Your task to perform on an android device: What's on my calendar tomorrow? Image 0: 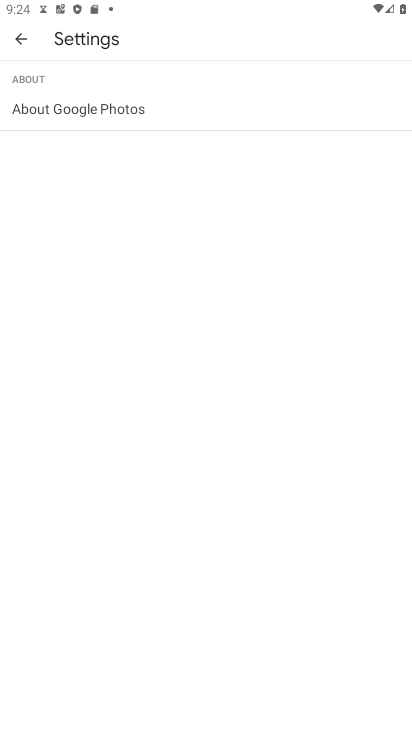
Step 0: press home button
Your task to perform on an android device: What's on my calendar tomorrow? Image 1: 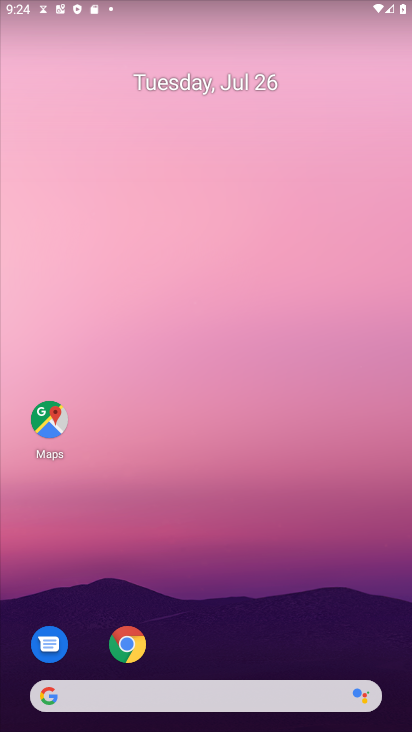
Step 1: drag from (218, 651) to (247, 158)
Your task to perform on an android device: What's on my calendar tomorrow? Image 2: 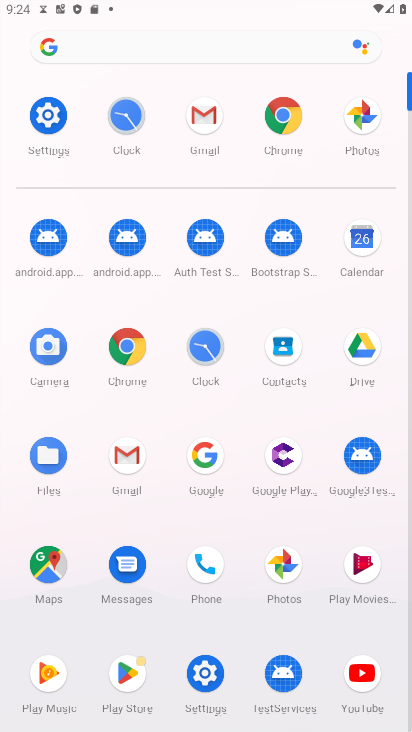
Step 2: click (366, 251)
Your task to perform on an android device: What's on my calendar tomorrow? Image 3: 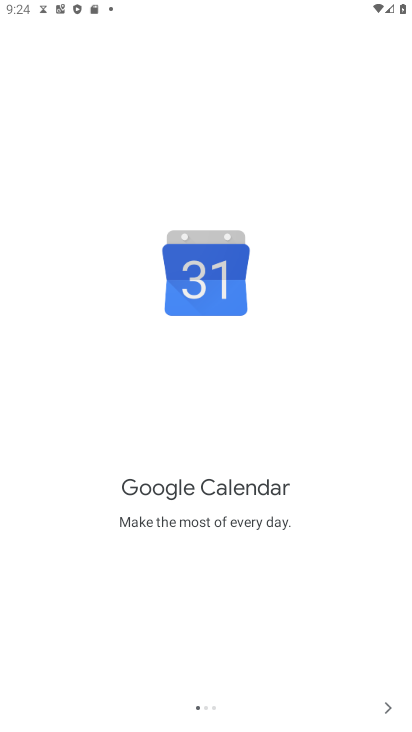
Step 3: click (381, 704)
Your task to perform on an android device: What's on my calendar tomorrow? Image 4: 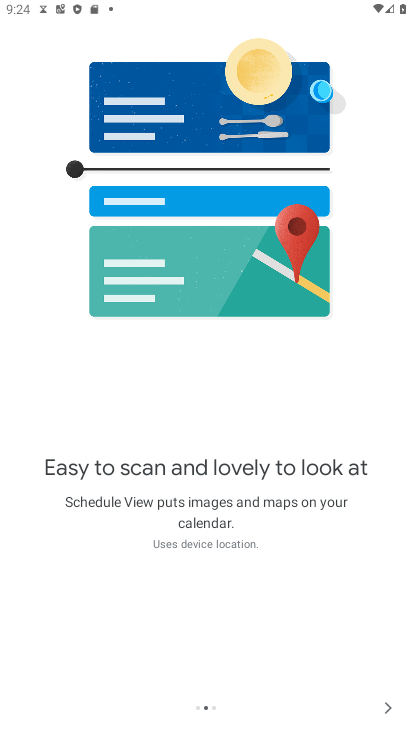
Step 4: click (386, 713)
Your task to perform on an android device: What's on my calendar tomorrow? Image 5: 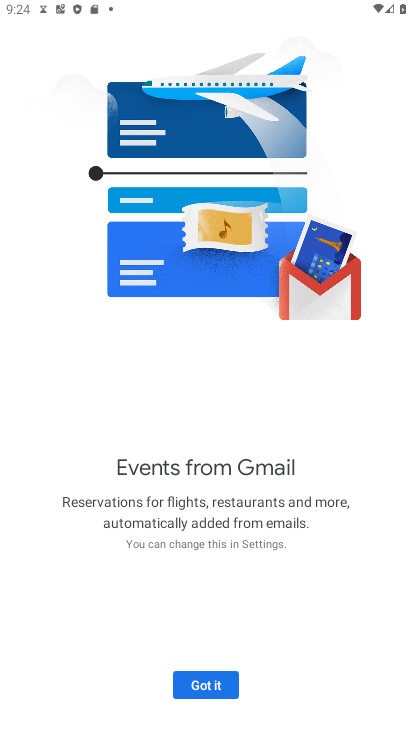
Step 5: click (208, 690)
Your task to perform on an android device: What's on my calendar tomorrow? Image 6: 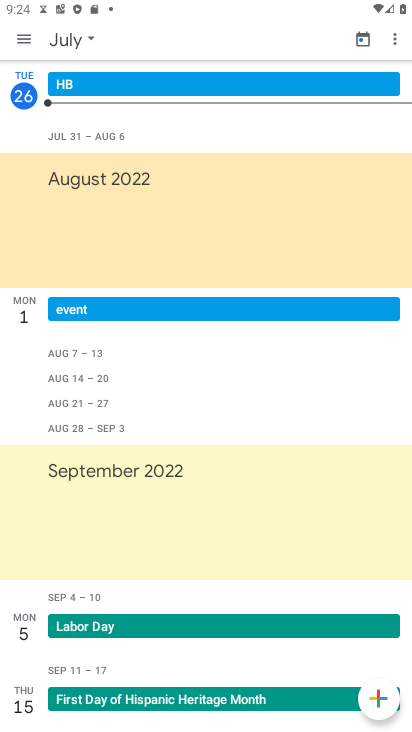
Step 6: click (26, 37)
Your task to perform on an android device: What's on my calendar tomorrow? Image 7: 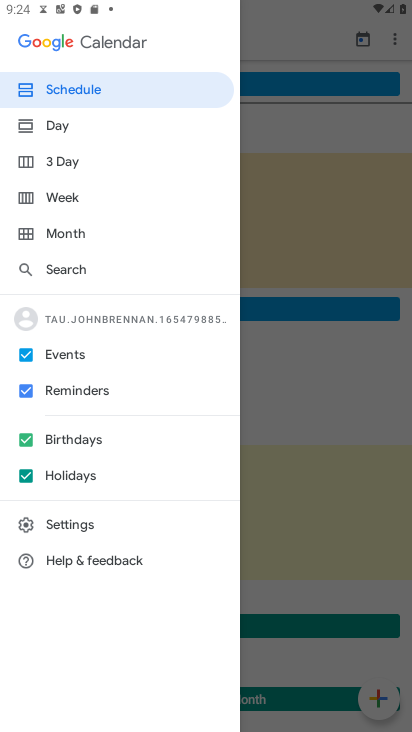
Step 7: click (74, 161)
Your task to perform on an android device: What's on my calendar tomorrow? Image 8: 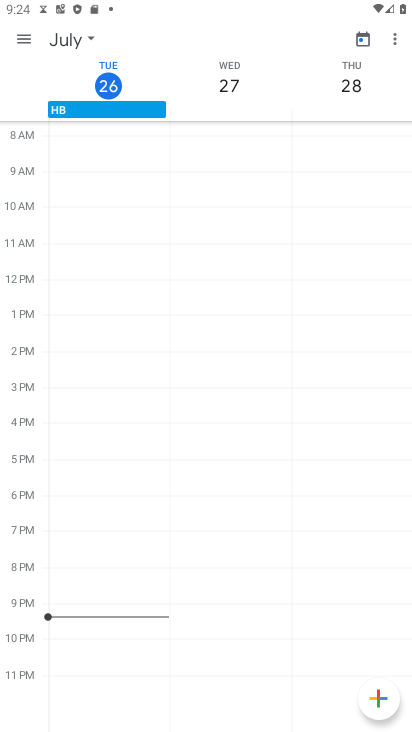
Step 8: click (226, 83)
Your task to perform on an android device: What's on my calendar tomorrow? Image 9: 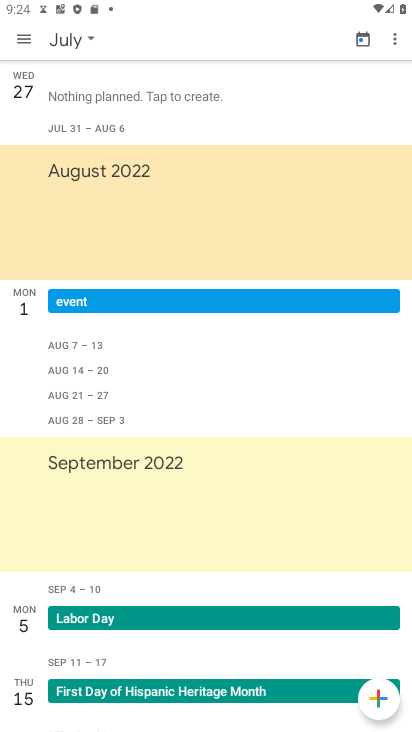
Step 9: task complete